Your task to perform on an android device: toggle show notifications on the lock screen Image 0: 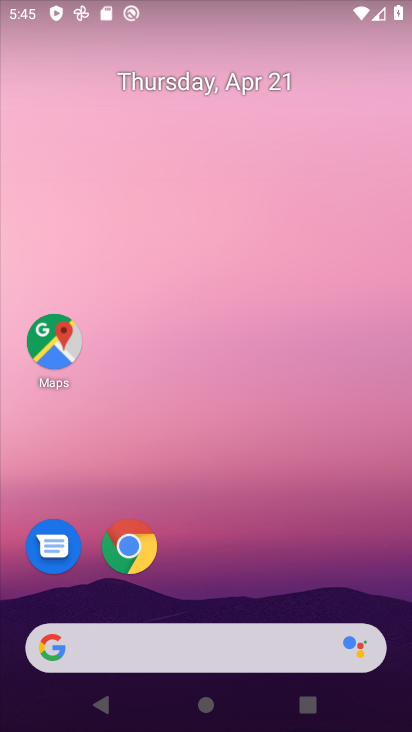
Step 0: drag from (304, 559) to (296, 24)
Your task to perform on an android device: toggle show notifications on the lock screen Image 1: 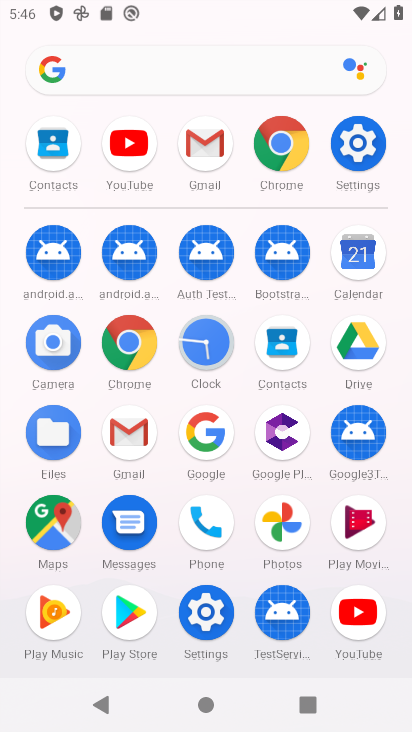
Step 1: click (361, 156)
Your task to perform on an android device: toggle show notifications on the lock screen Image 2: 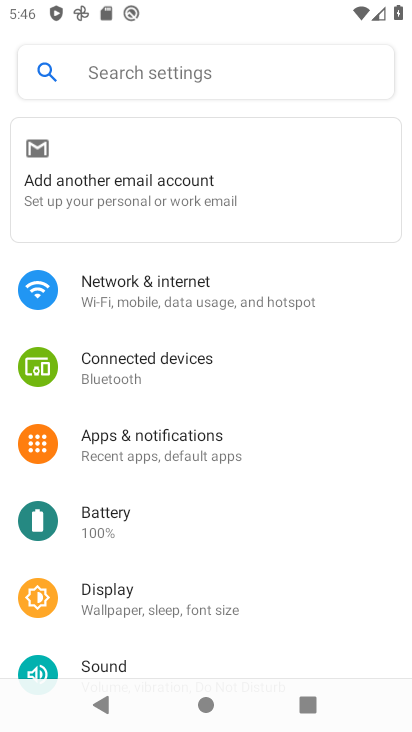
Step 2: click (180, 440)
Your task to perform on an android device: toggle show notifications on the lock screen Image 3: 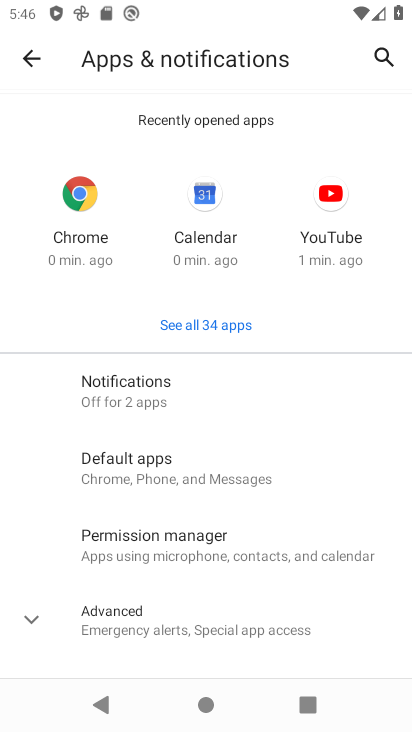
Step 3: click (189, 380)
Your task to perform on an android device: toggle show notifications on the lock screen Image 4: 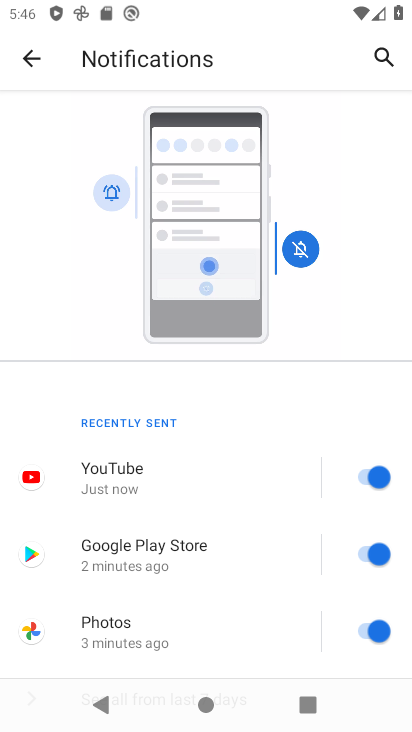
Step 4: drag from (231, 596) to (231, 191)
Your task to perform on an android device: toggle show notifications on the lock screen Image 5: 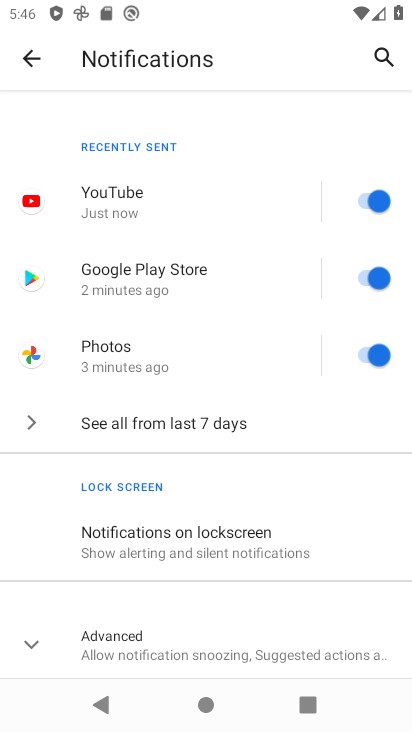
Step 5: click (177, 537)
Your task to perform on an android device: toggle show notifications on the lock screen Image 6: 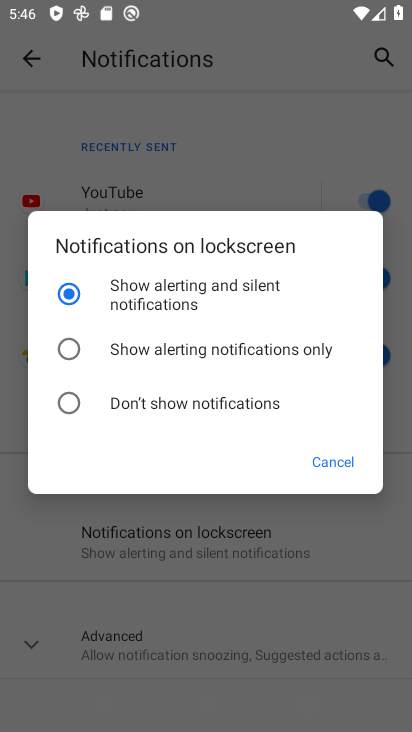
Step 6: click (69, 349)
Your task to perform on an android device: toggle show notifications on the lock screen Image 7: 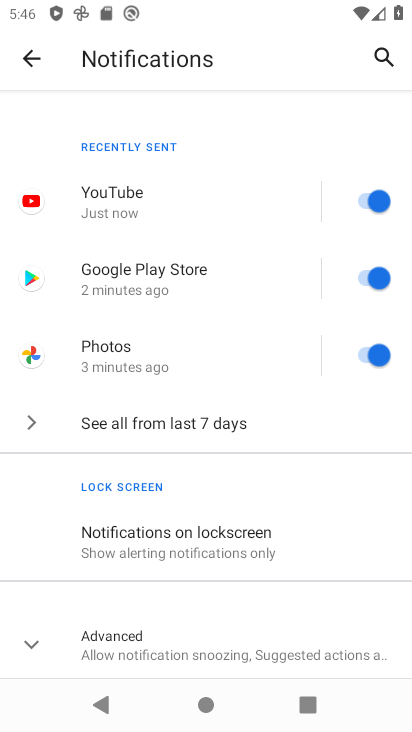
Step 7: task complete